Your task to perform on an android device: open a bookmark in the chrome app Image 0: 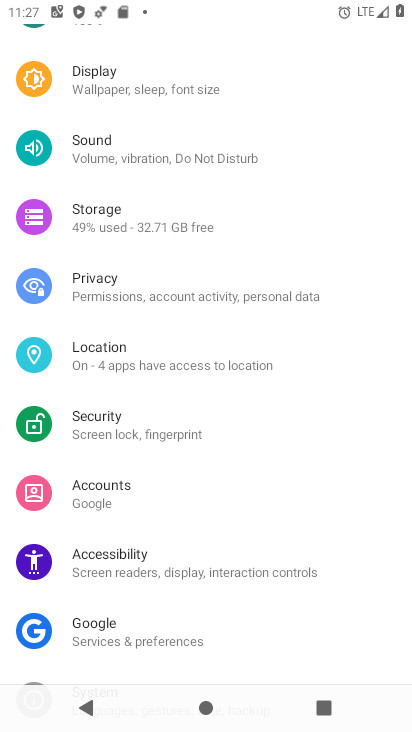
Step 0: press home button
Your task to perform on an android device: open a bookmark in the chrome app Image 1: 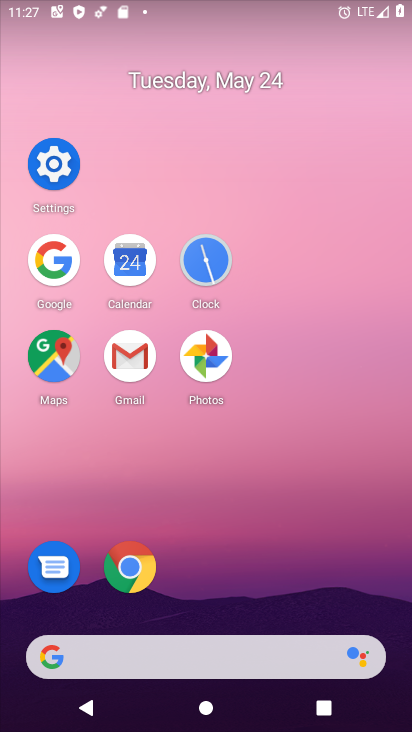
Step 1: click (135, 576)
Your task to perform on an android device: open a bookmark in the chrome app Image 2: 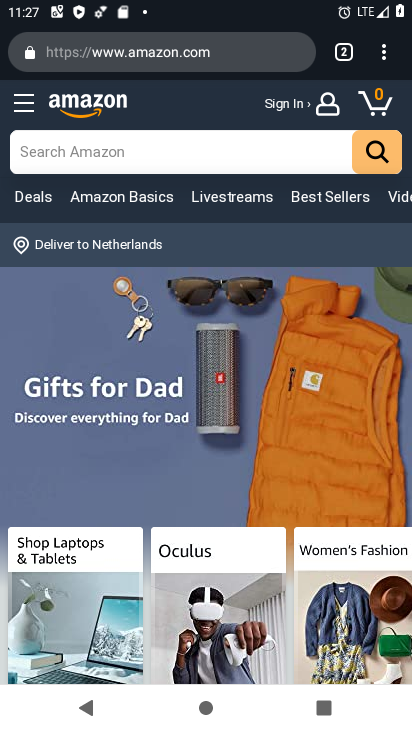
Step 2: click (395, 54)
Your task to perform on an android device: open a bookmark in the chrome app Image 3: 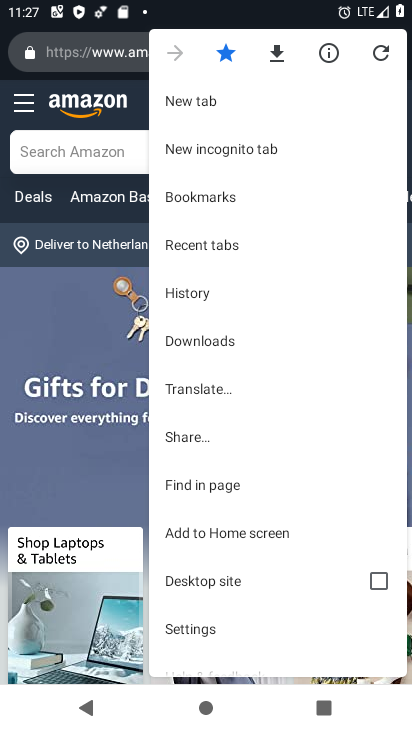
Step 3: click (273, 189)
Your task to perform on an android device: open a bookmark in the chrome app Image 4: 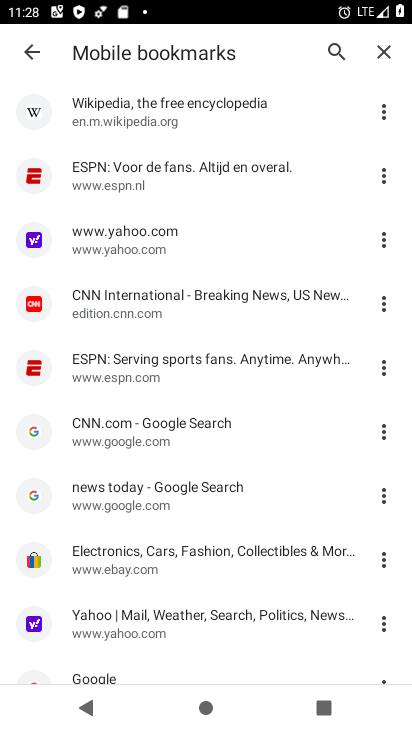
Step 4: task complete